Your task to perform on an android device: turn on the 12-hour format for clock Image 0: 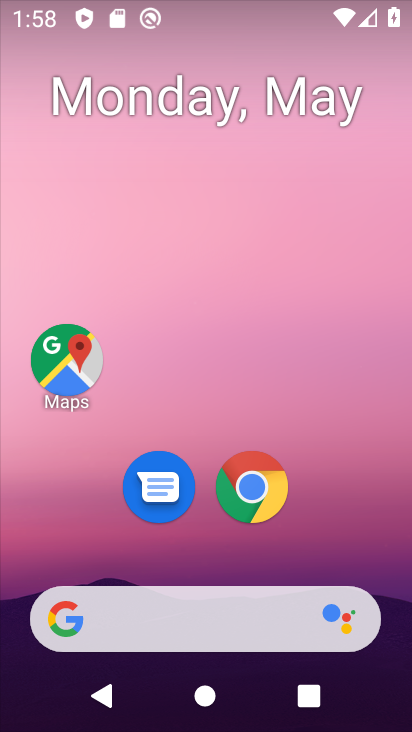
Step 0: drag from (385, 558) to (327, 148)
Your task to perform on an android device: turn on the 12-hour format for clock Image 1: 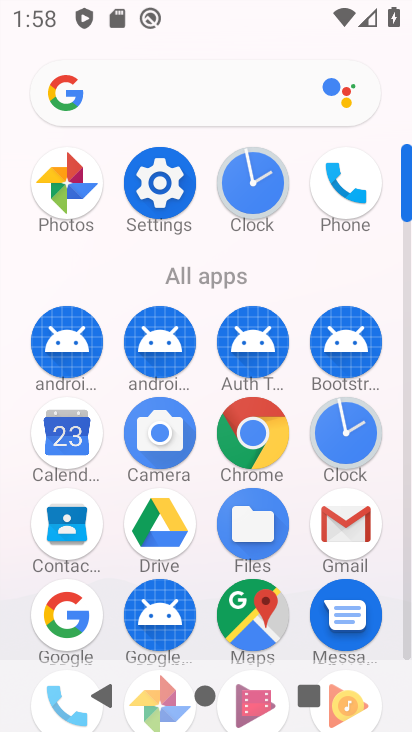
Step 1: click (252, 192)
Your task to perform on an android device: turn on the 12-hour format for clock Image 2: 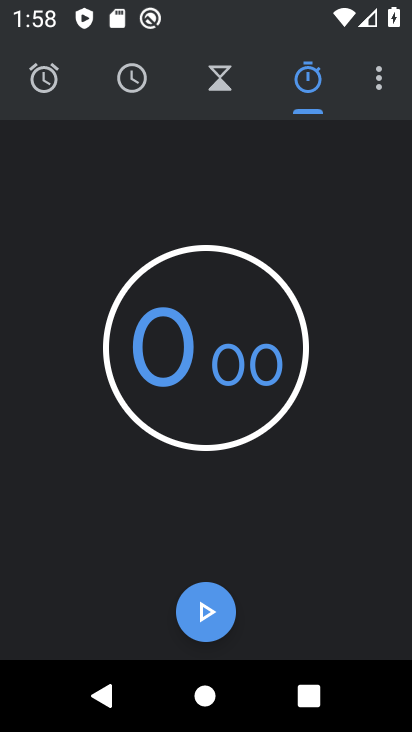
Step 2: click (389, 79)
Your task to perform on an android device: turn on the 12-hour format for clock Image 3: 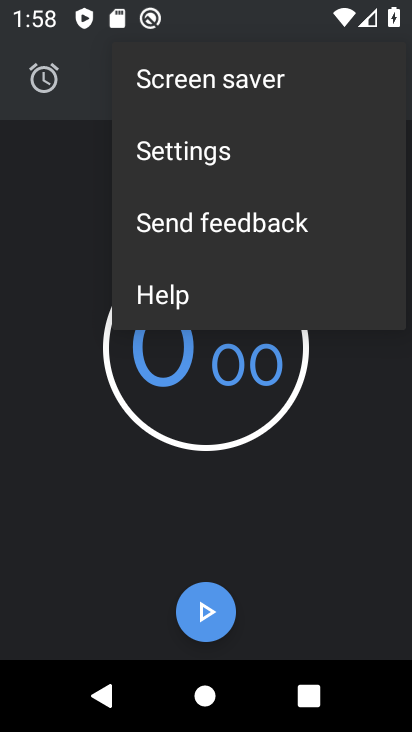
Step 3: click (389, 79)
Your task to perform on an android device: turn on the 12-hour format for clock Image 4: 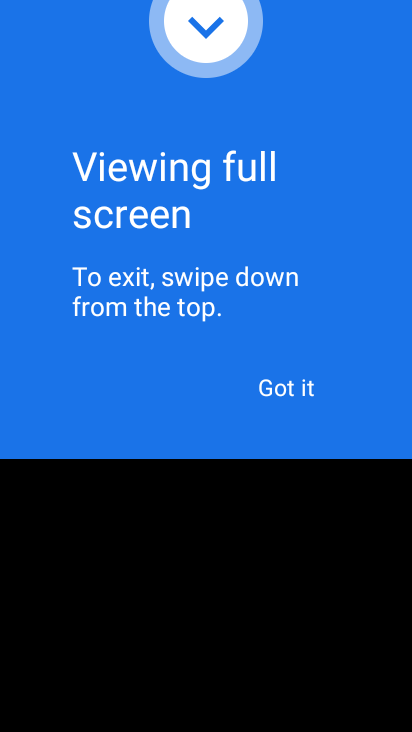
Step 4: press back button
Your task to perform on an android device: turn on the 12-hour format for clock Image 5: 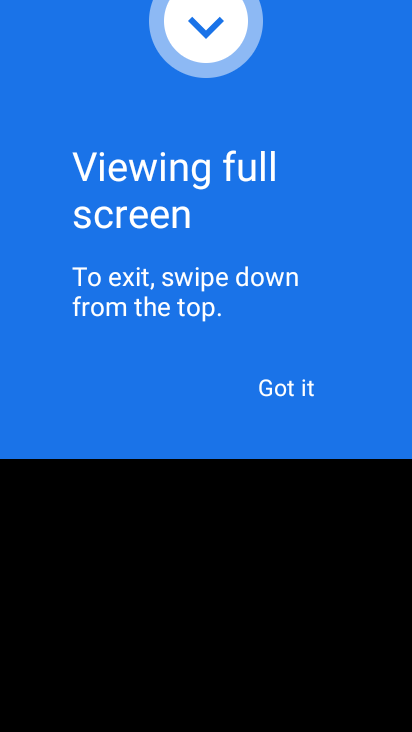
Step 5: click (260, 397)
Your task to perform on an android device: turn on the 12-hour format for clock Image 6: 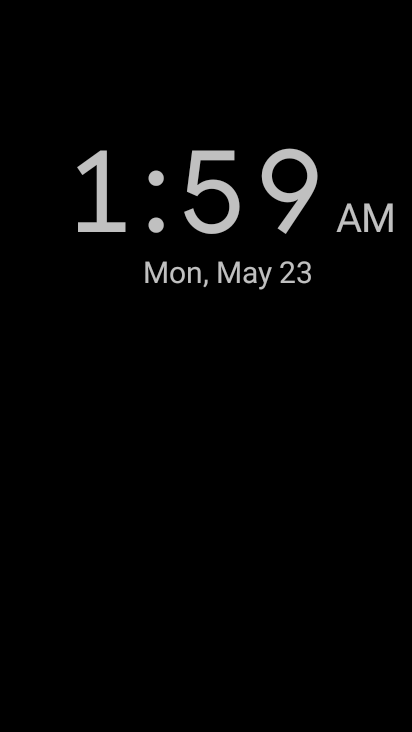
Step 6: press back button
Your task to perform on an android device: turn on the 12-hour format for clock Image 7: 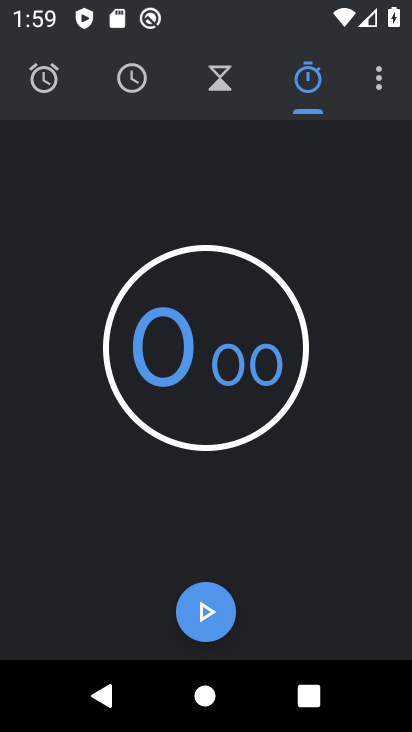
Step 7: click (390, 93)
Your task to perform on an android device: turn on the 12-hour format for clock Image 8: 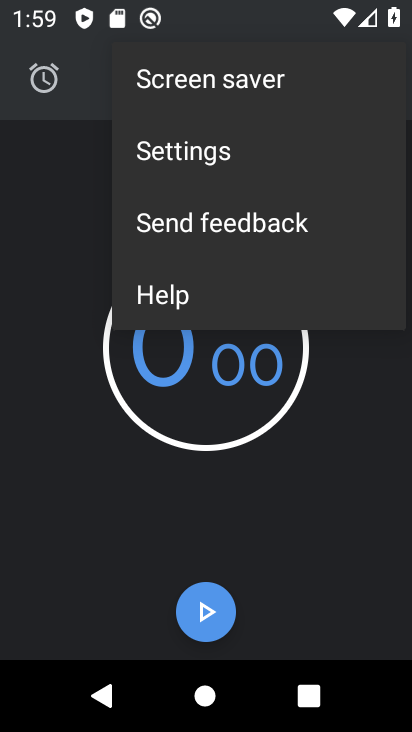
Step 8: click (280, 151)
Your task to perform on an android device: turn on the 12-hour format for clock Image 9: 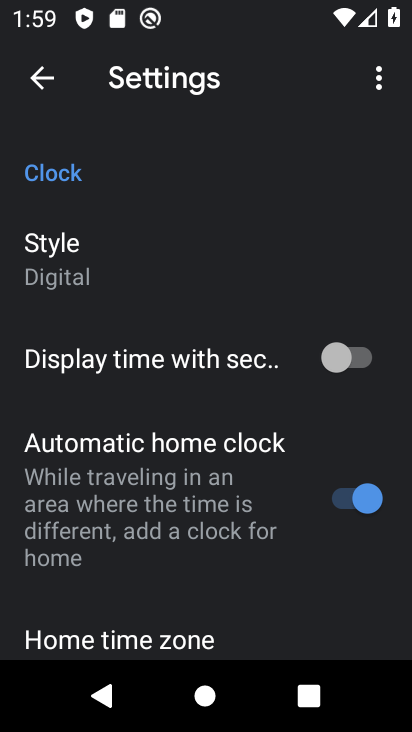
Step 9: drag from (296, 620) to (246, 235)
Your task to perform on an android device: turn on the 12-hour format for clock Image 10: 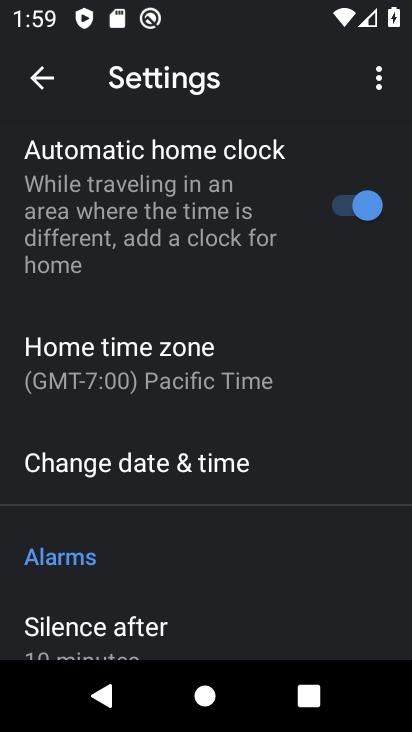
Step 10: click (276, 475)
Your task to perform on an android device: turn on the 12-hour format for clock Image 11: 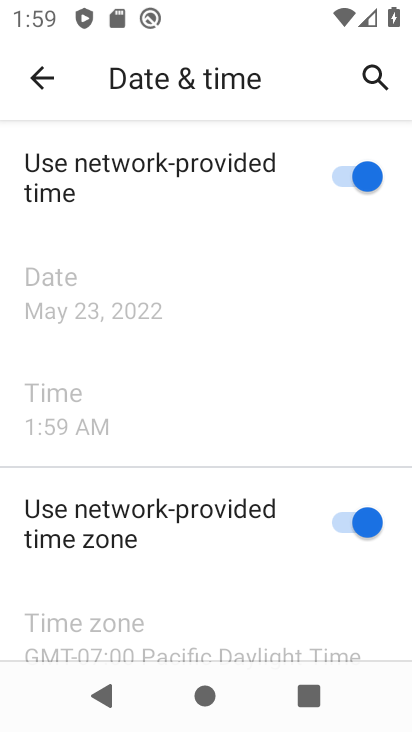
Step 11: task complete